Your task to perform on an android device: See recent photos Image 0: 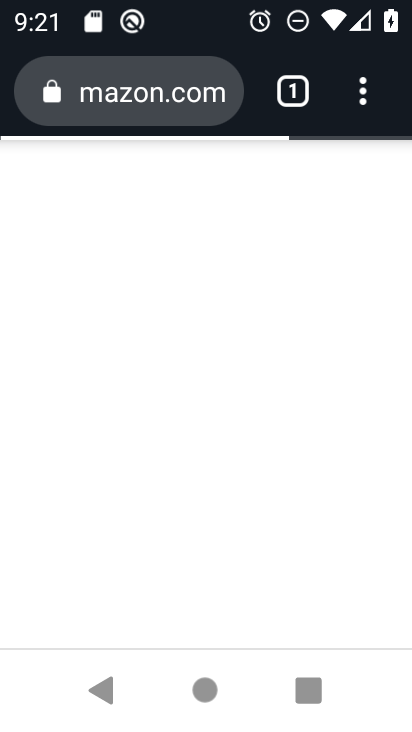
Step 0: press home button
Your task to perform on an android device: See recent photos Image 1: 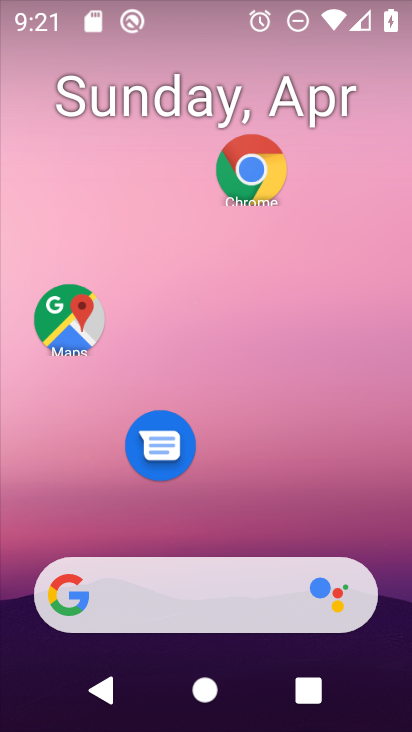
Step 1: drag from (271, 502) to (290, 61)
Your task to perform on an android device: See recent photos Image 2: 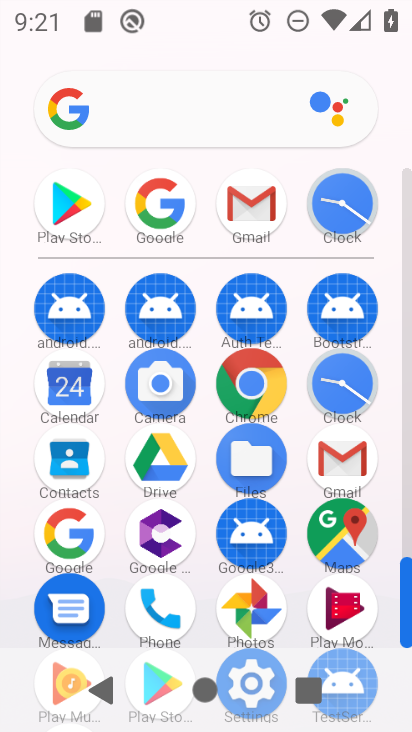
Step 2: click (253, 611)
Your task to perform on an android device: See recent photos Image 3: 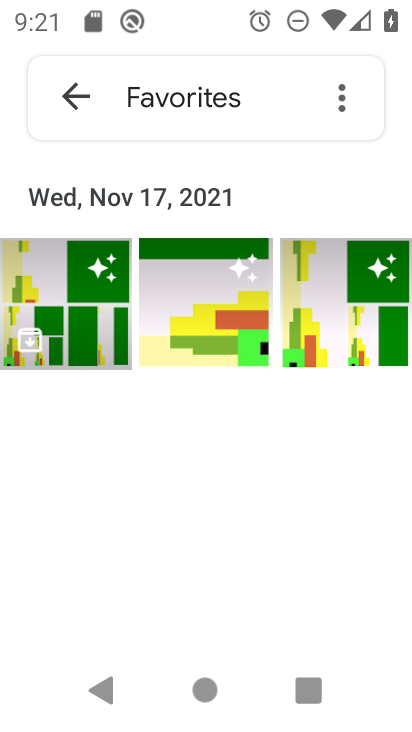
Step 3: task complete